Your task to perform on an android device: Open calendar and show me the third week of next month Image 0: 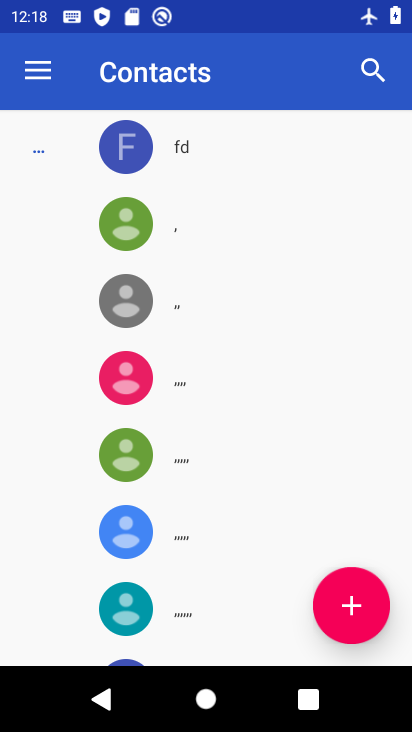
Step 0: press home button
Your task to perform on an android device: Open calendar and show me the third week of next month Image 1: 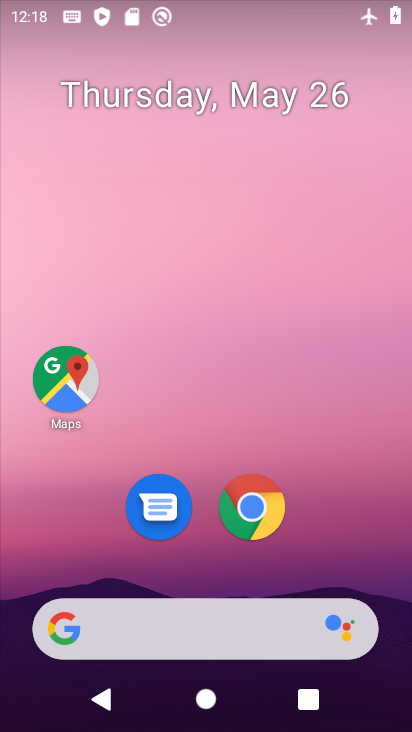
Step 1: drag from (204, 580) to (253, 153)
Your task to perform on an android device: Open calendar and show me the third week of next month Image 2: 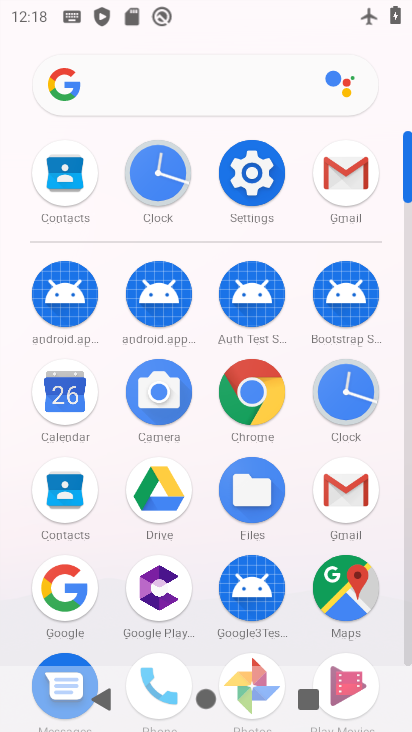
Step 2: click (69, 405)
Your task to perform on an android device: Open calendar and show me the third week of next month Image 3: 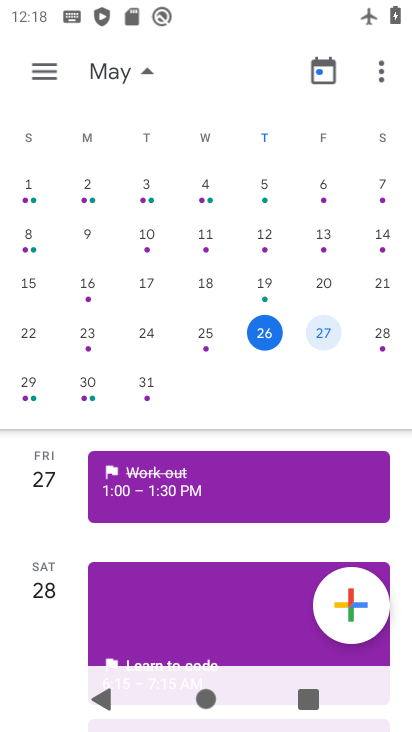
Step 3: drag from (380, 282) to (0, 244)
Your task to perform on an android device: Open calendar and show me the third week of next month Image 4: 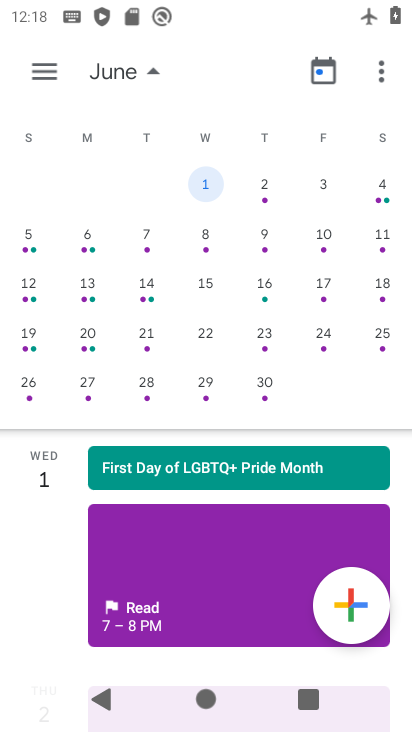
Step 4: click (29, 273)
Your task to perform on an android device: Open calendar and show me the third week of next month Image 5: 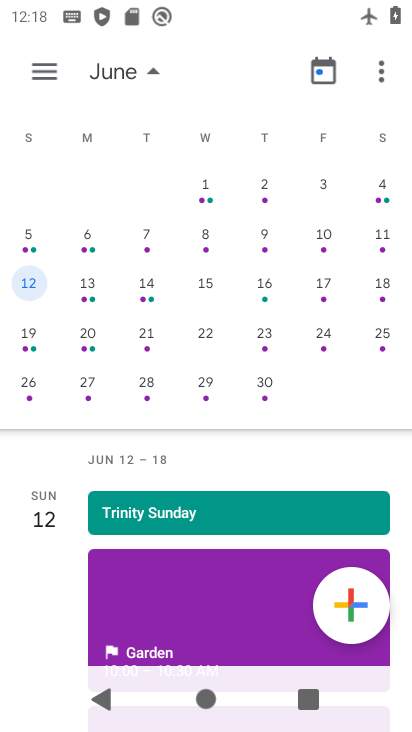
Step 5: task complete